Your task to perform on an android device: Do I have any events today? Image 0: 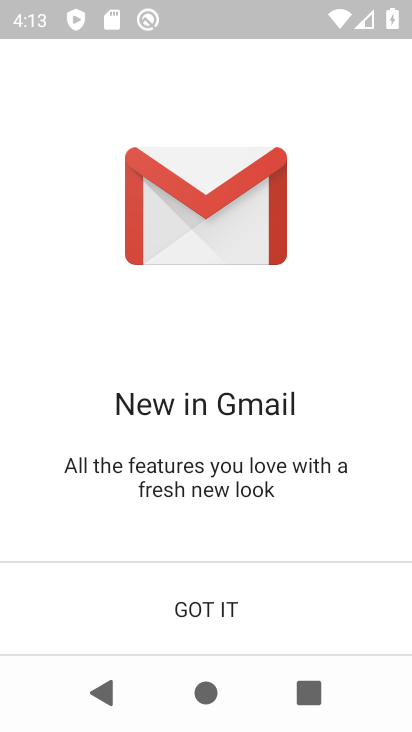
Step 0: click (196, 611)
Your task to perform on an android device: Do I have any events today? Image 1: 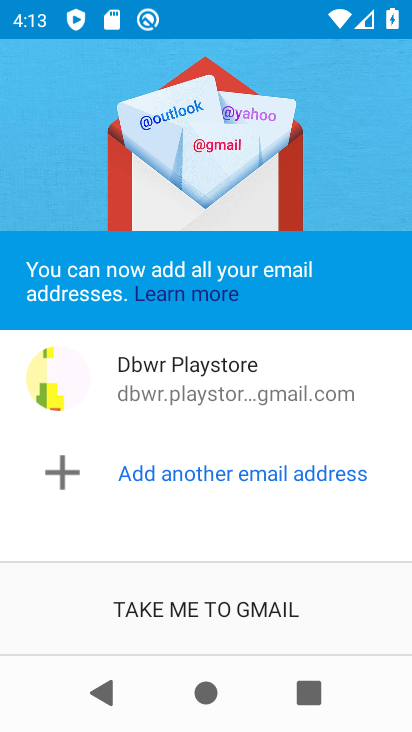
Step 1: click (196, 611)
Your task to perform on an android device: Do I have any events today? Image 2: 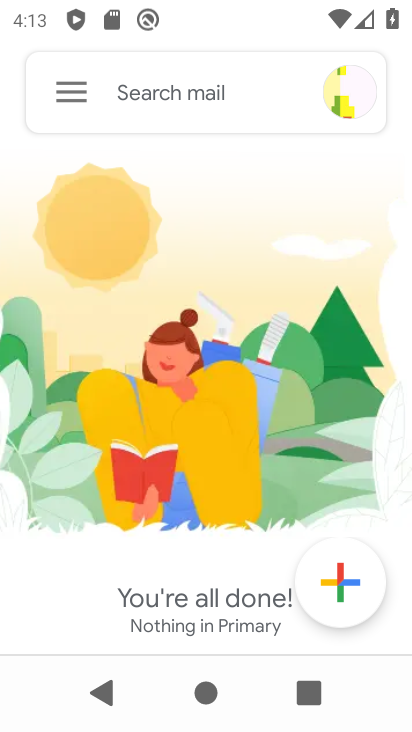
Step 2: press home button
Your task to perform on an android device: Do I have any events today? Image 3: 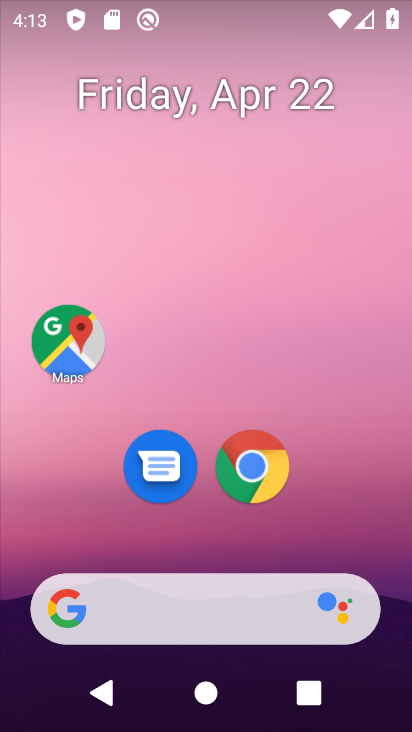
Step 3: drag from (389, 544) to (332, 279)
Your task to perform on an android device: Do I have any events today? Image 4: 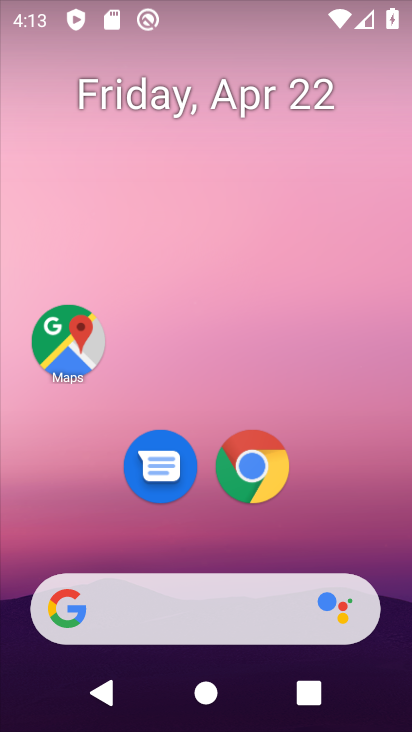
Step 4: drag from (338, 555) to (319, 122)
Your task to perform on an android device: Do I have any events today? Image 5: 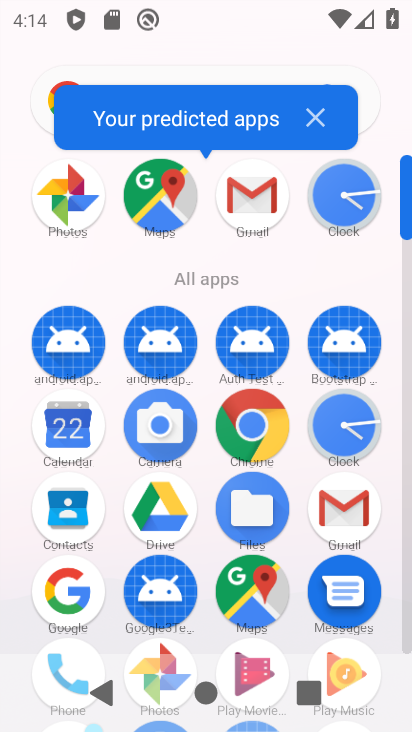
Step 5: click (75, 433)
Your task to perform on an android device: Do I have any events today? Image 6: 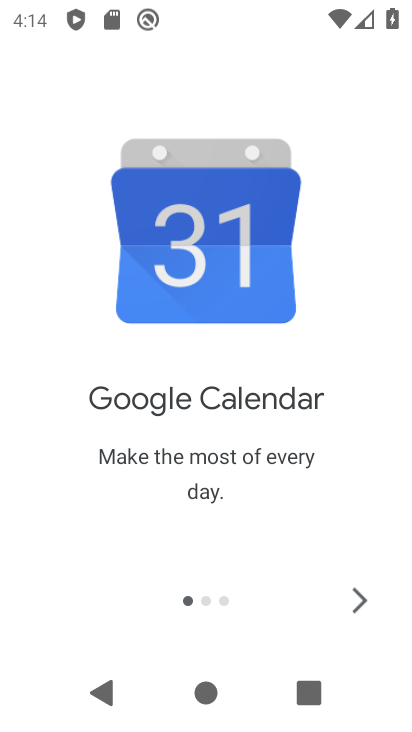
Step 6: click (361, 604)
Your task to perform on an android device: Do I have any events today? Image 7: 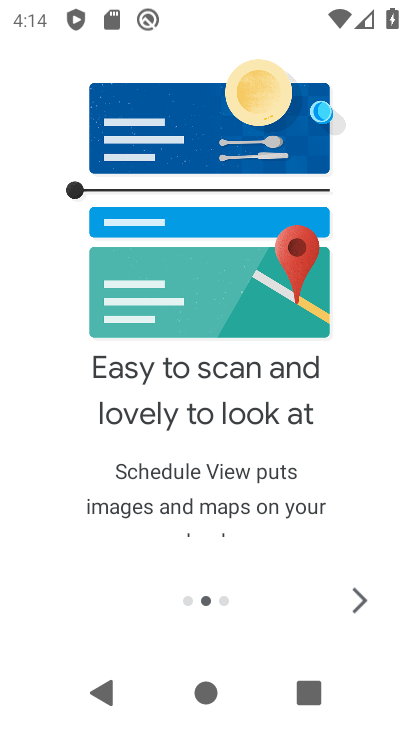
Step 7: click (361, 604)
Your task to perform on an android device: Do I have any events today? Image 8: 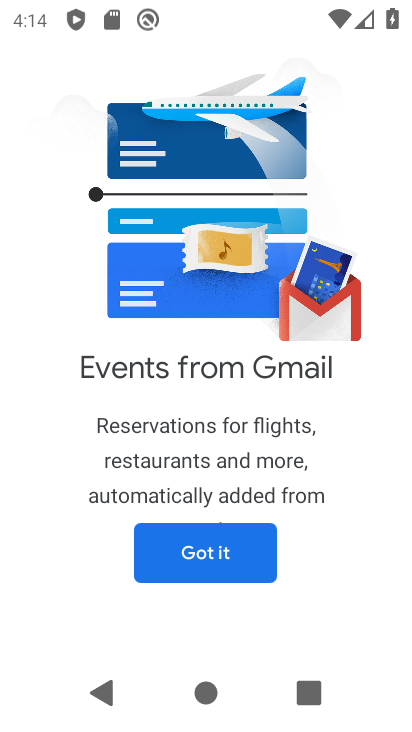
Step 8: click (233, 553)
Your task to perform on an android device: Do I have any events today? Image 9: 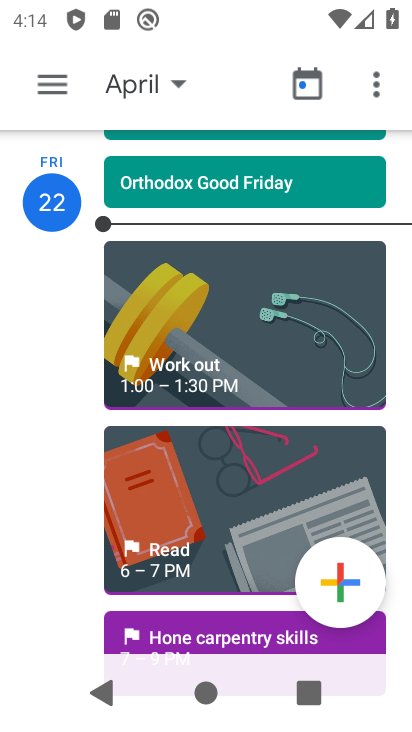
Step 9: click (66, 86)
Your task to perform on an android device: Do I have any events today? Image 10: 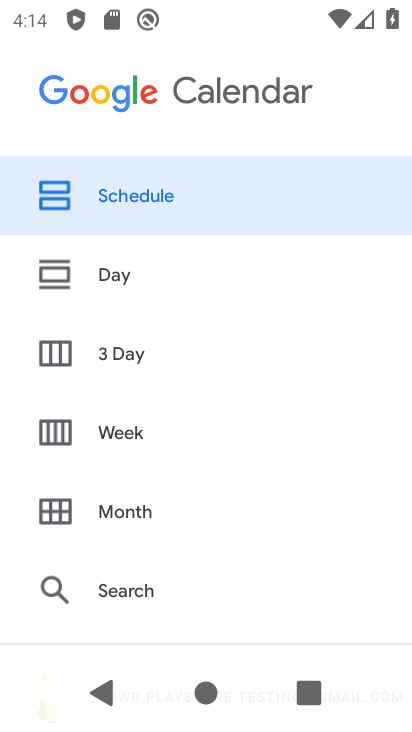
Step 10: drag from (209, 574) to (216, 37)
Your task to perform on an android device: Do I have any events today? Image 11: 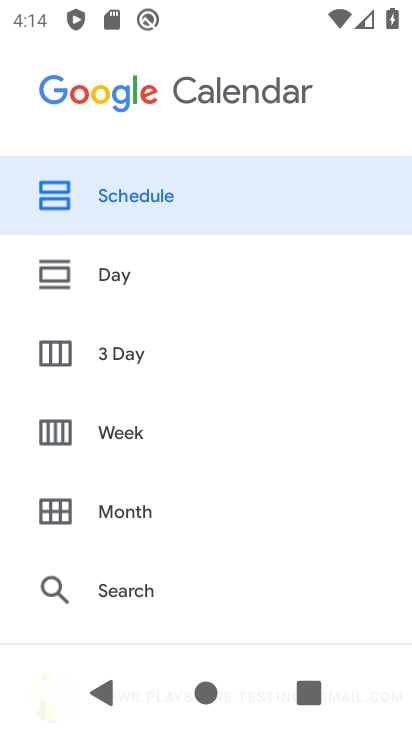
Step 11: drag from (267, 405) to (216, 23)
Your task to perform on an android device: Do I have any events today? Image 12: 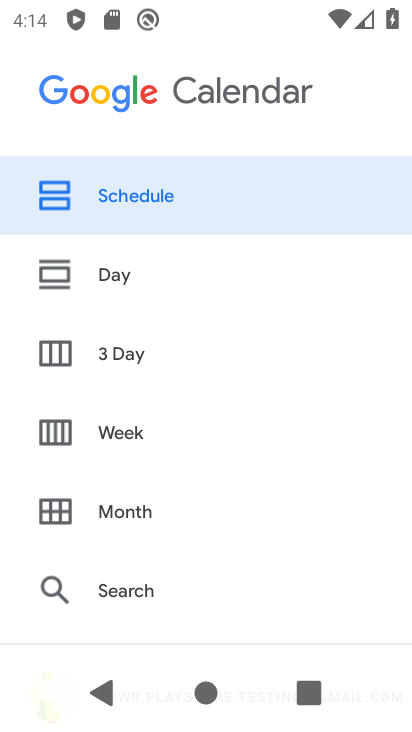
Step 12: drag from (232, 547) to (286, 123)
Your task to perform on an android device: Do I have any events today? Image 13: 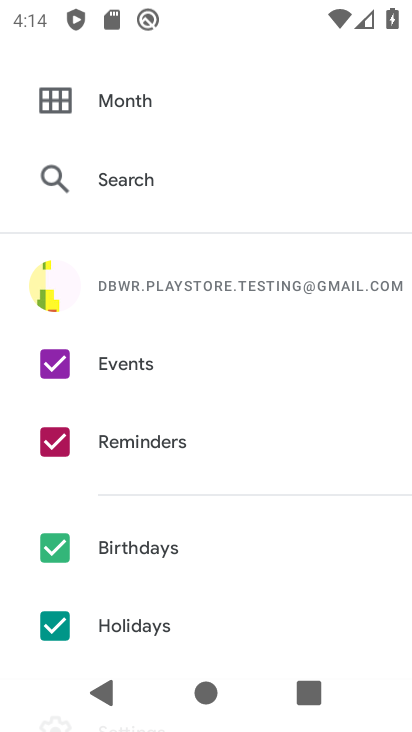
Step 13: click (56, 620)
Your task to perform on an android device: Do I have any events today? Image 14: 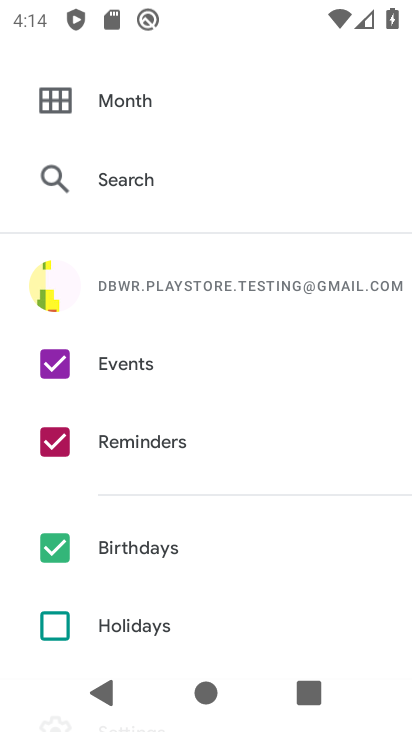
Step 14: click (55, 549)
Your task to perform on an android device: Do I have any events today? Image 15: 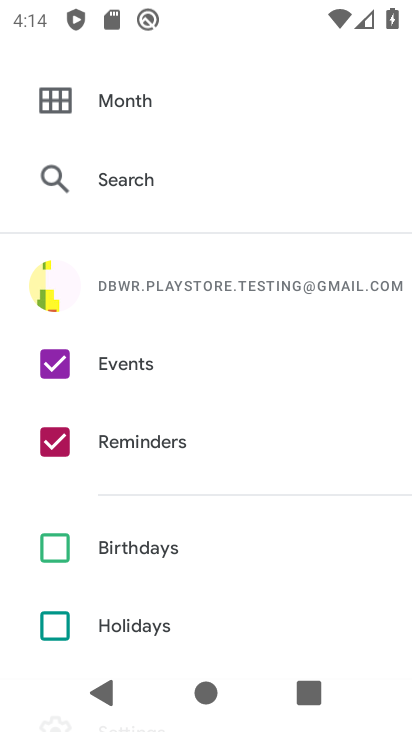
Step 15: click (54, 447)
Your task to perform on an android device: Do I have any events today? Image 16: 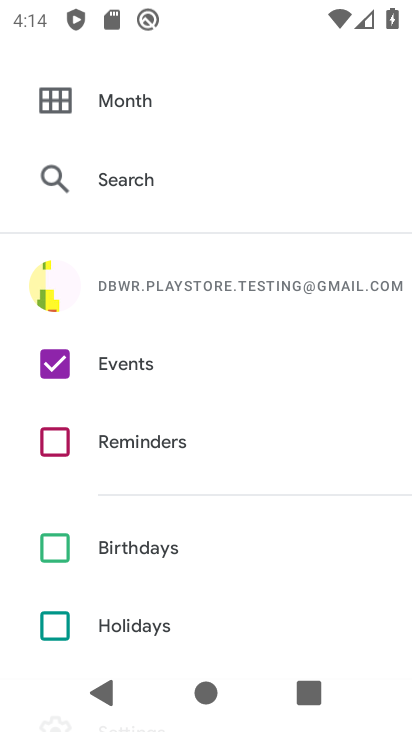
Step 16: drag from (152, 151) to (187, 529)
Your task to perform on an android device: Do I have any events today? Image 17: 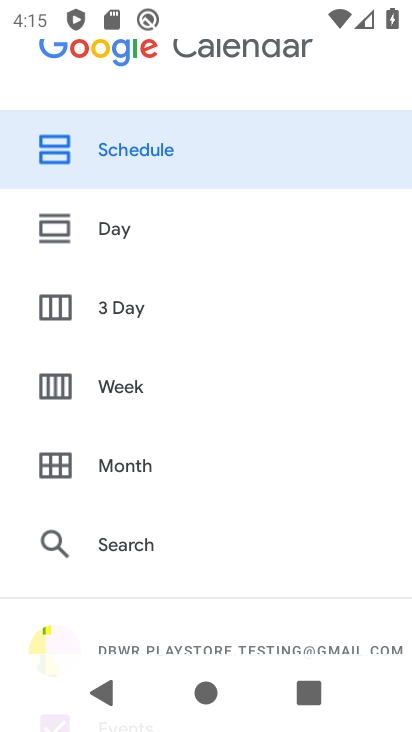
Step 17: click (206, 171)
Your task to perform on an android device: Do I have any events today? Image 18: 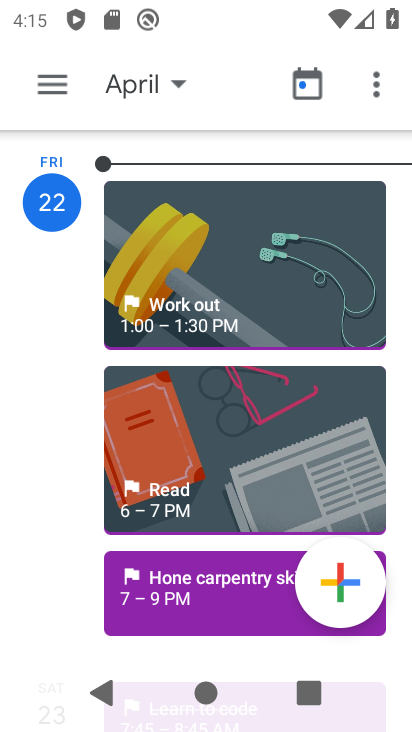
Step 18: task complete